Your task to perform on an android device: Search for vegetarian restaurants on Maps Image 0: 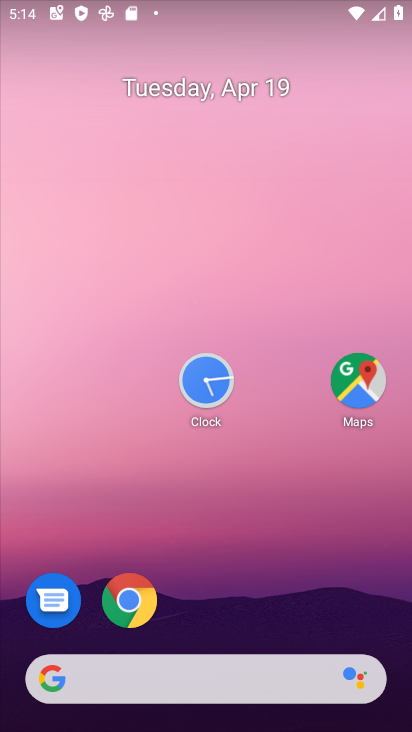
Step 0: drag from (210, 530) to (141, 40)
Your task to perform on an android device: Search for vegetarian restaurants on Maps Image 1: 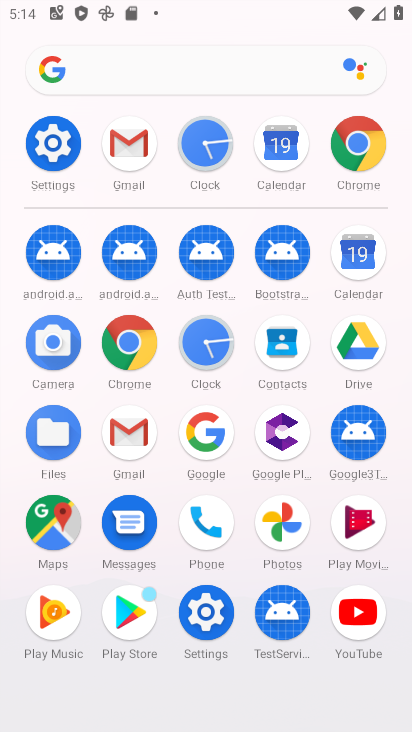
Step 1: click (46, 518)
Your task to perform on an android device: Search for vegetarian restaurants on Maps Image 2: 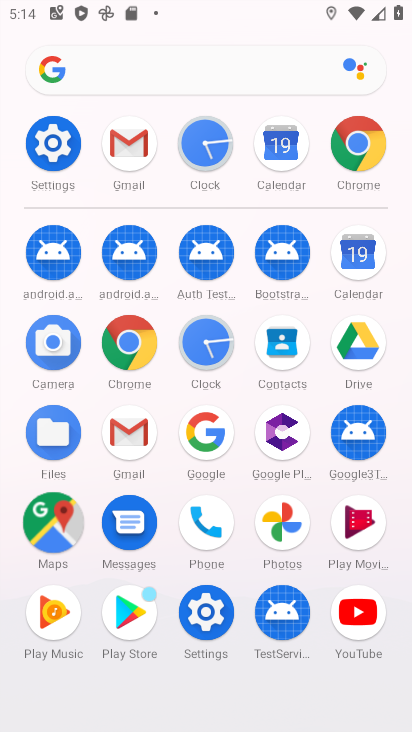
Step 2: click (46, 518)
Your task to perform on an android device: Search for vegetarian restaurants on Maps Image 3: 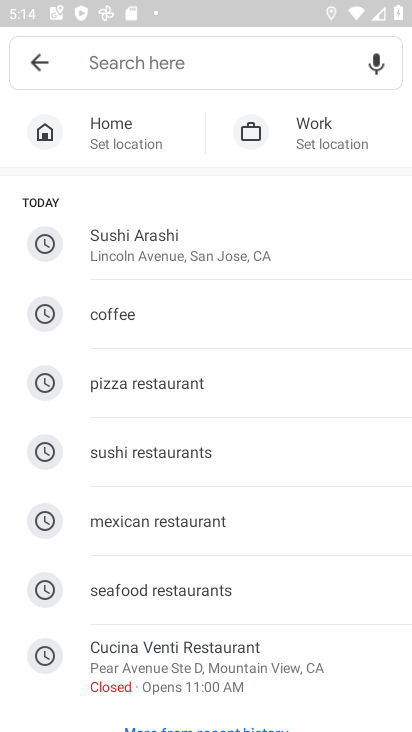
Step 3: click (109, 60)
Your task to perform on an android device: Search for vegetarian restaurants on Maps Image 4: 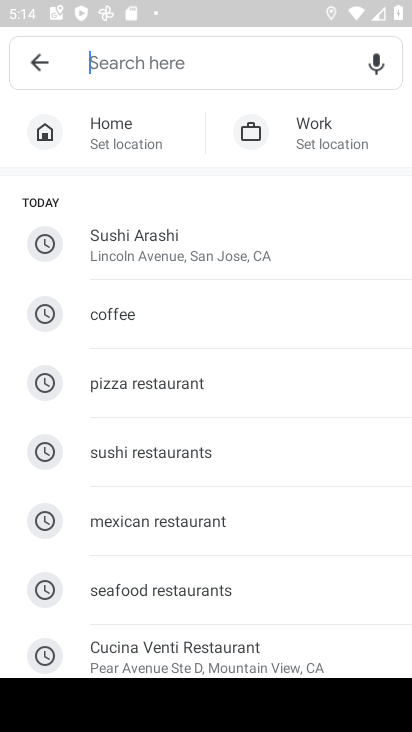
Step 4: type "vegetarian restaurants"
Your task to perform on an android device: Search for vegetarian restaurants on Maps Image 5: 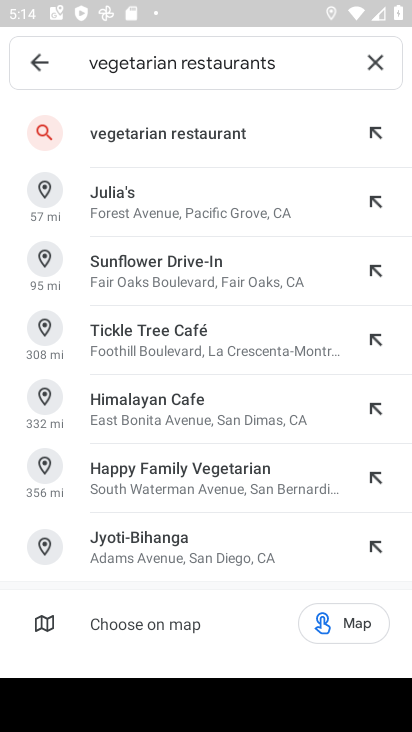
Step 5: click (125, 122)
Your task to perform on an android device: Search for vegetarian restaurants on Maps Image 6: 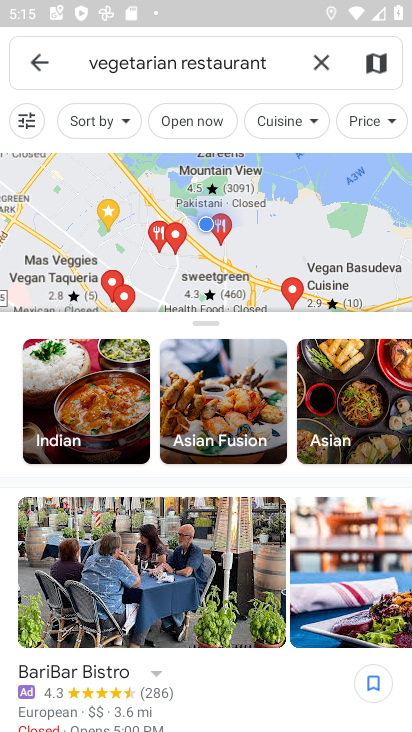
Step 6: task complete